Your task to perform on an android device: Go to Amazon Image 0: 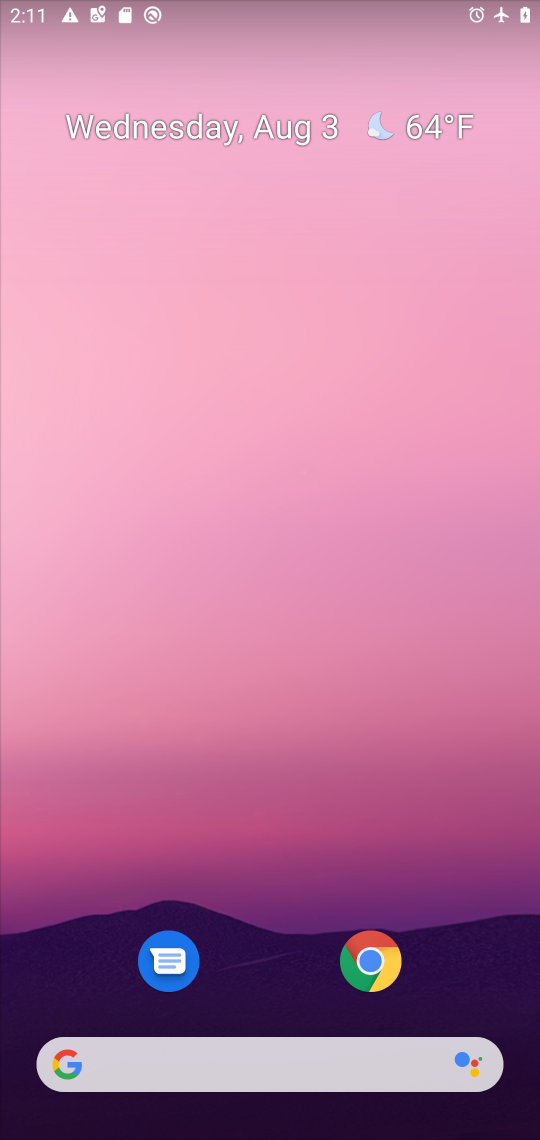
Step 0: click (367, 973)
Your task to perform on an android device: Go to Amazon Image 1: 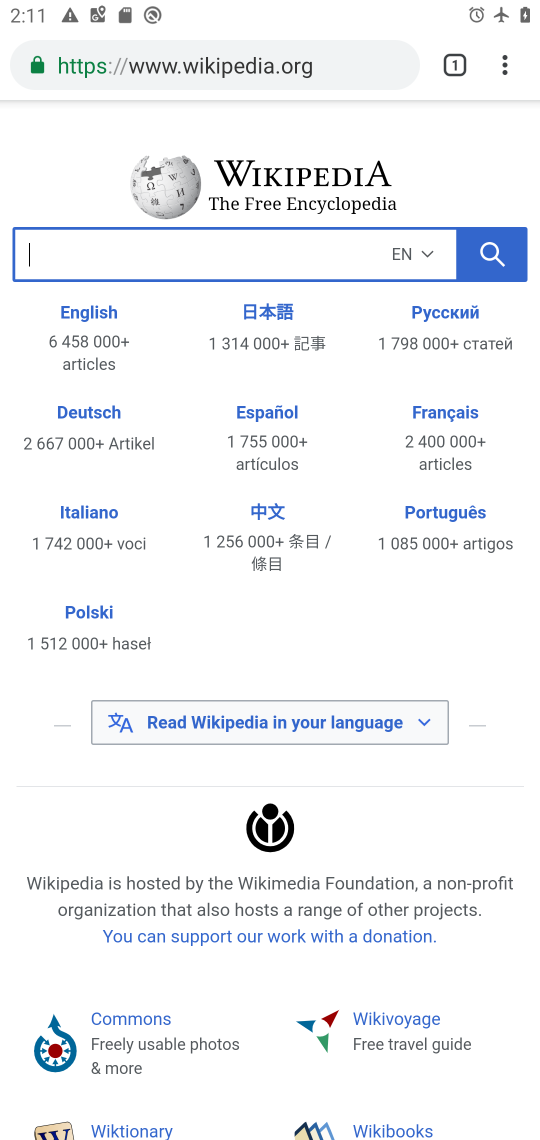
Step 1: click (327, 68)
Your task to perform on an android device: Go to Amazon Image 2: 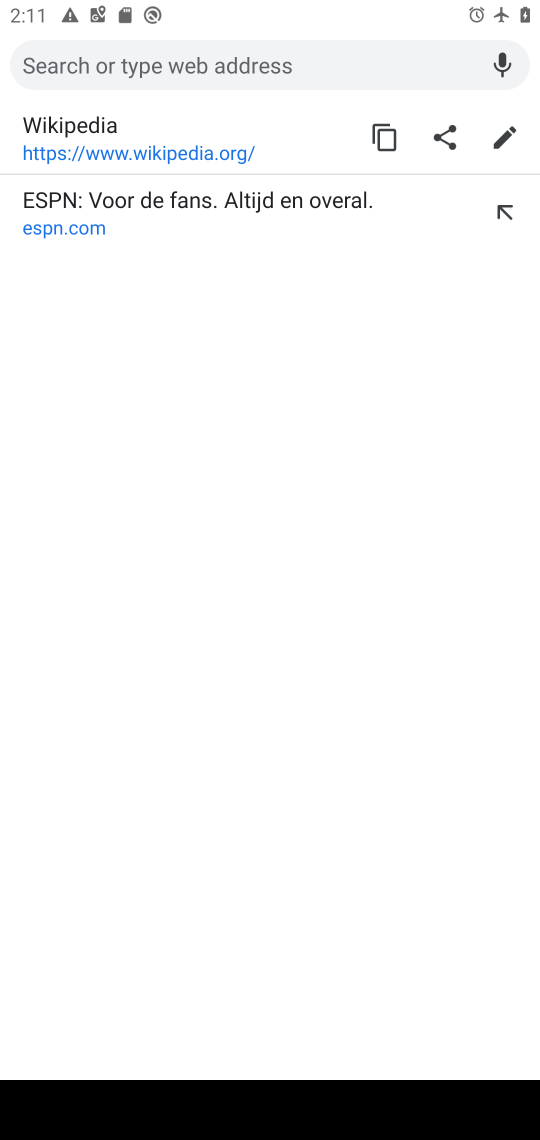
Step 2: type "amazon"
Your task to perform on an android device: Go to Amazon Image 3: 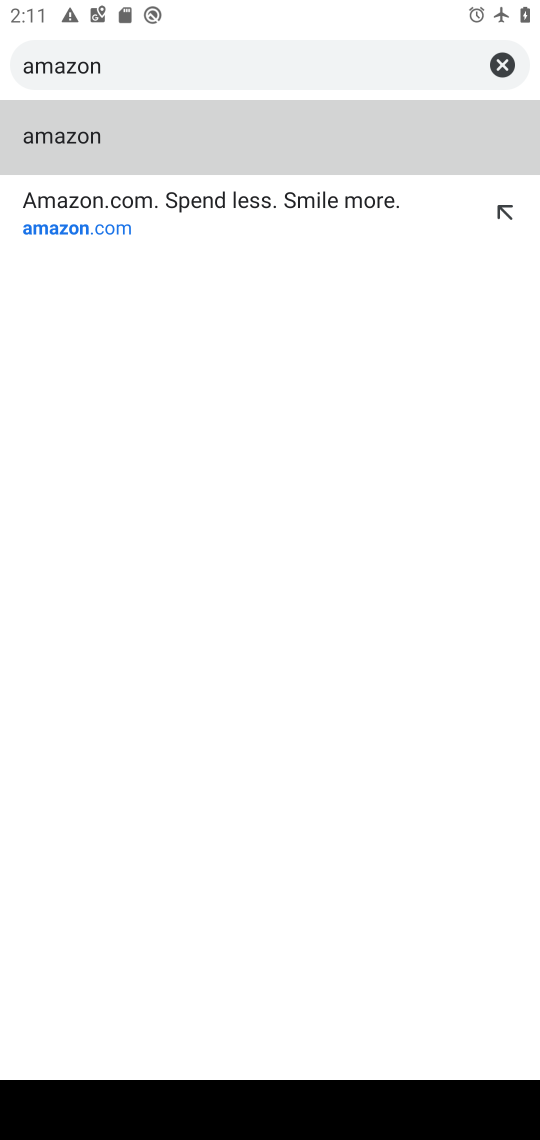
Step 3: click (119, 207)
Your task to perform on an android device: Go to Amazon Image 4: 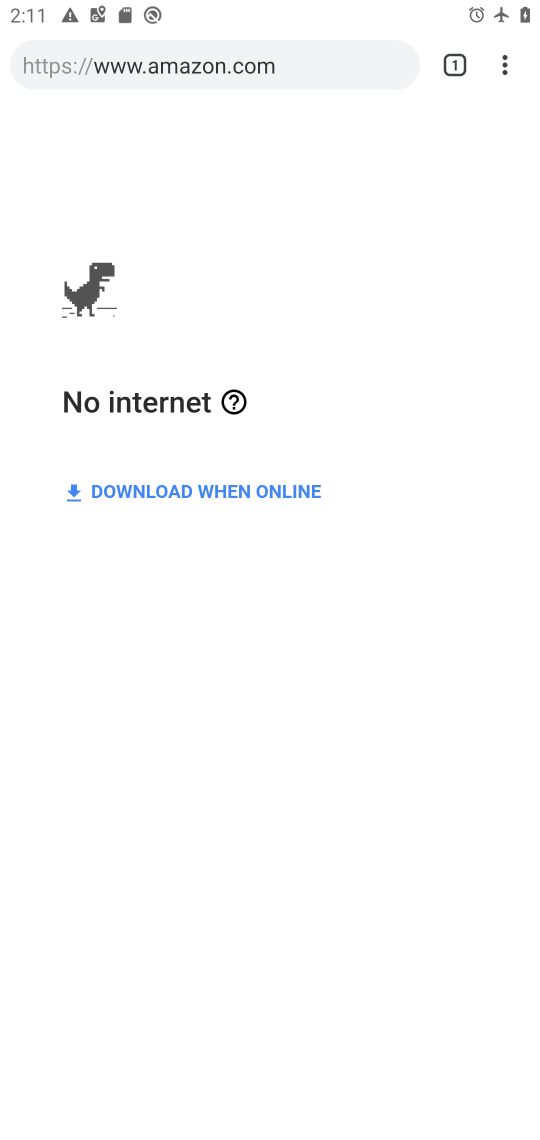
Step 4: task complete